Your task to perform on an android device: toggle wifi Image 0: 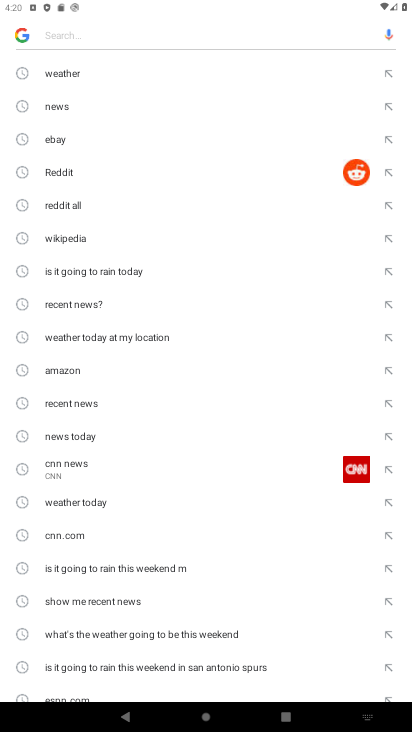
Step 0: drag from (114, 5) to (19, 404)
Your task to perform on an android device: toggle wifi Image 1: 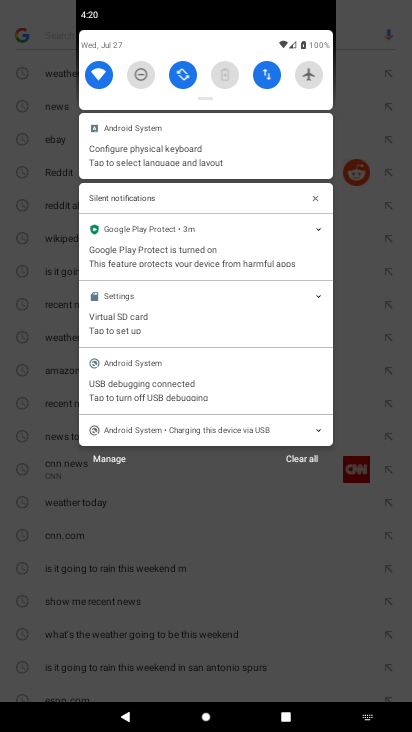
Step 1: click (103, 75)
Your task to perform on an android device: toggle wifi Image 2: 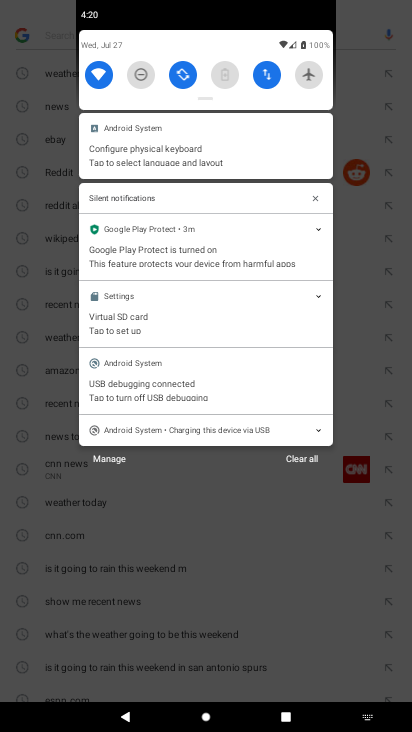
Step 2: click (103, 75)
Your task to perform on an android device: toggle wifi Image 3: 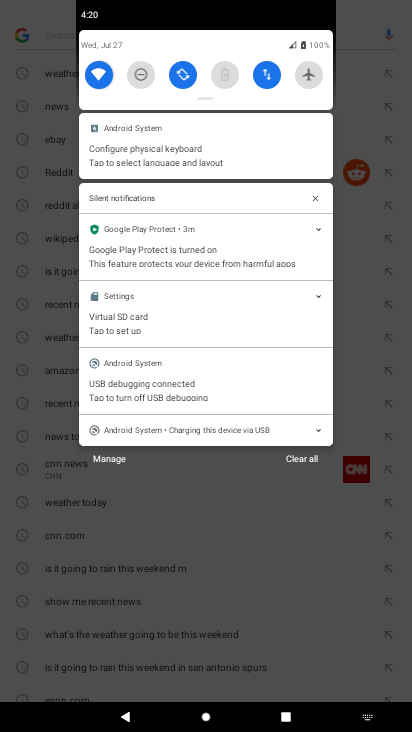
Step 3: click (103, 75)
Your task to perform on an android device: toggle wifi Image 4: 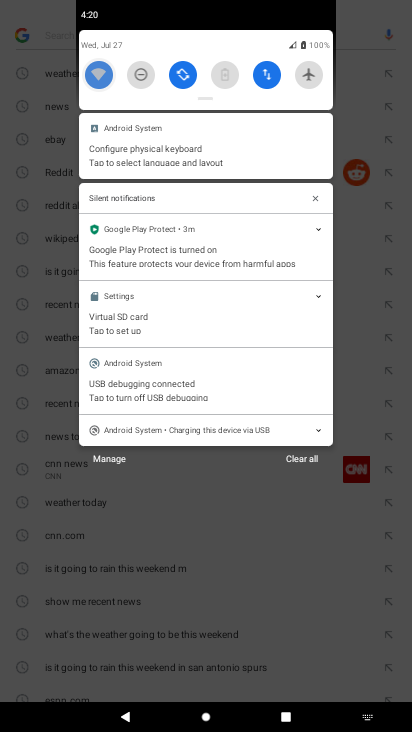
Step 4: click (103, 75)
Your task to perform on an android device: toggle wifi Image 5: 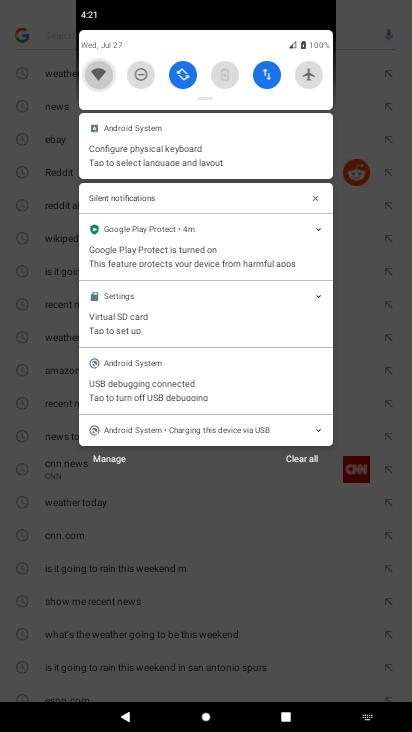
Step 5: click (103, 75)
Your task to perform on an android device: toggle wifi Image 6: 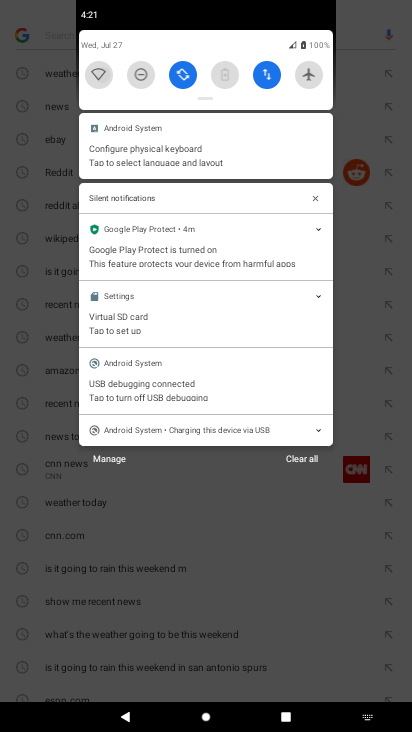
Step 6: click (103, 75)
Your task to perform on an android device: toggle wifi Image 7: 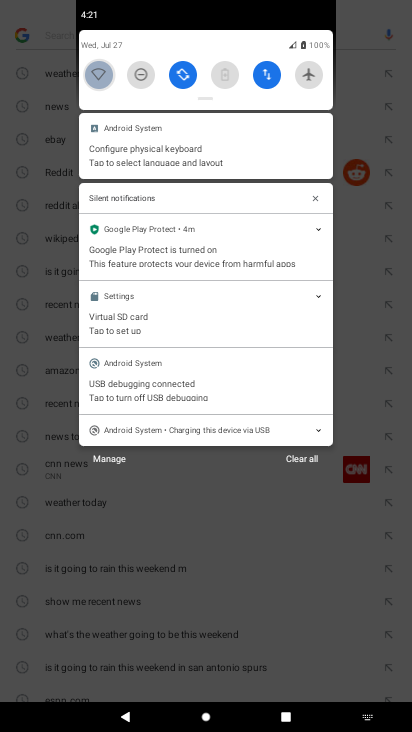
Step 7: click (103, 75)
Your task to perform on an android device: toggle wifi Image 8: 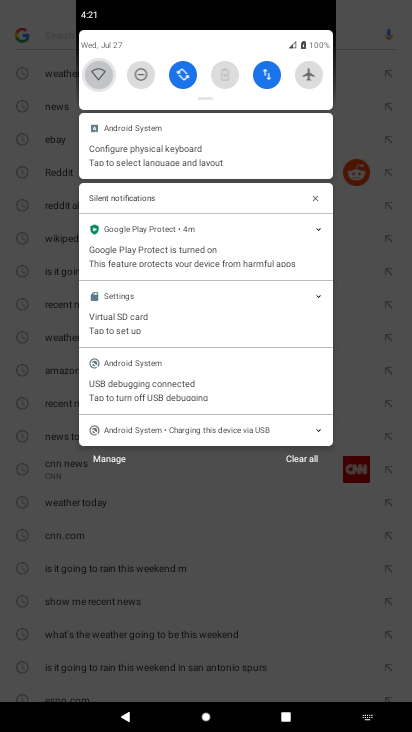
Step 8: click (103, 75)
Your task to perform on an android device: toggle wifi Image 9: 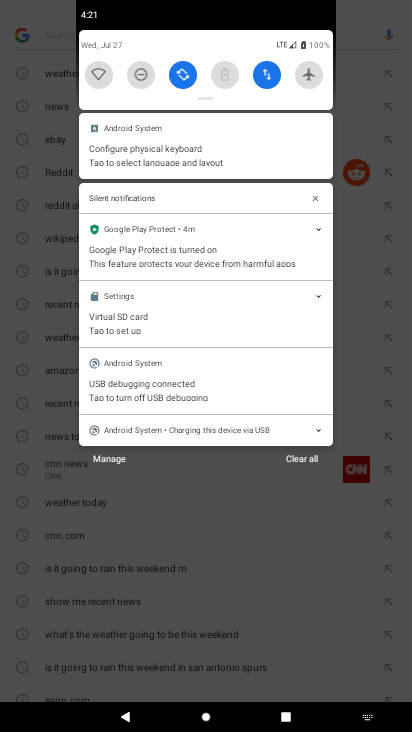
Step 9: task complete